Your task to perform on an android device: check out phone information Image 0: 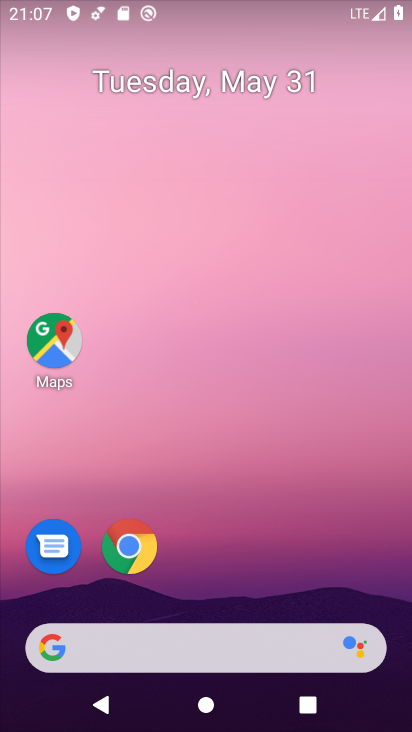
Step 0: drag from (403, 694) to (344, 110)
Your task to perform on an android device: check out phone information Image 1: 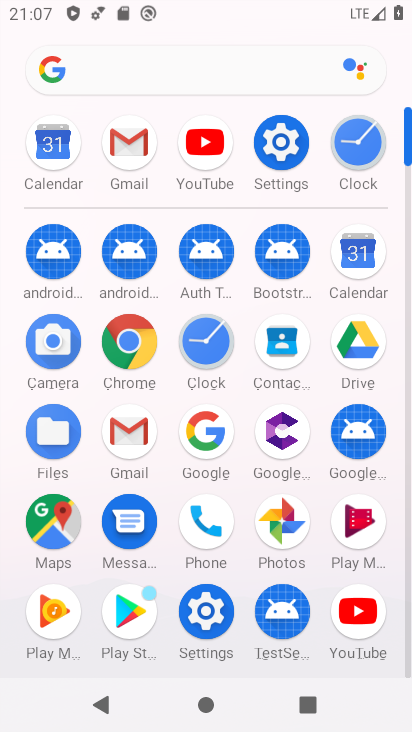
Step 1: click (208, 599)
Your task to perform on an android device: check out phone information Image 2: 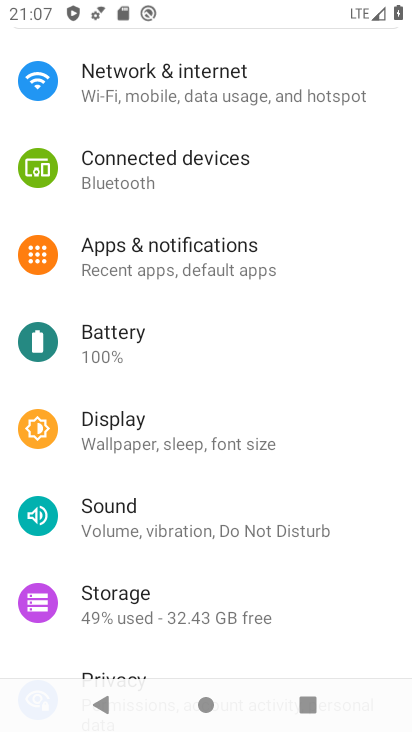
Step 2: drag from (322, 614) to (314, 226)
Your task to perform on an android device: check out phone information Image 3: 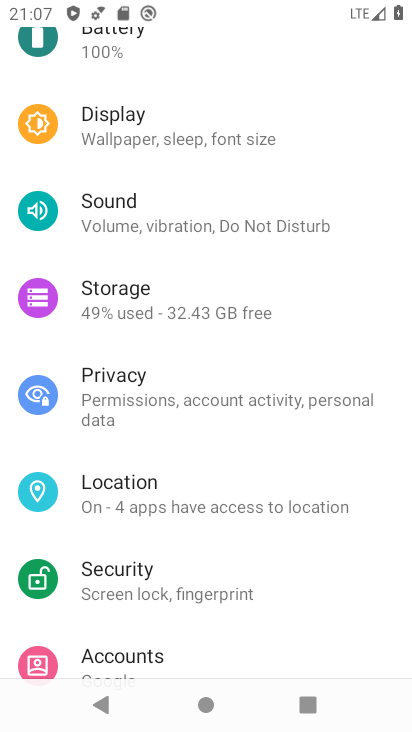
Step 3: drag from (280, 628) to (285, 240)
Your task to perform on an android device: check out phone information Image 4: 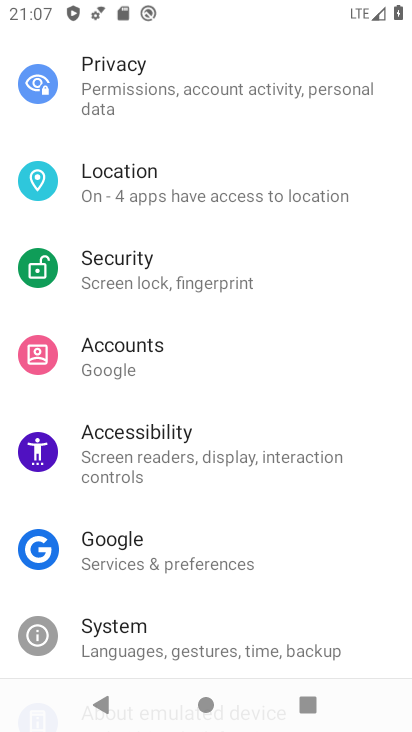
Step 4: drag from (224, 629) to (265, 184)
Your task to perform on an android device: check out phone information Image 5: 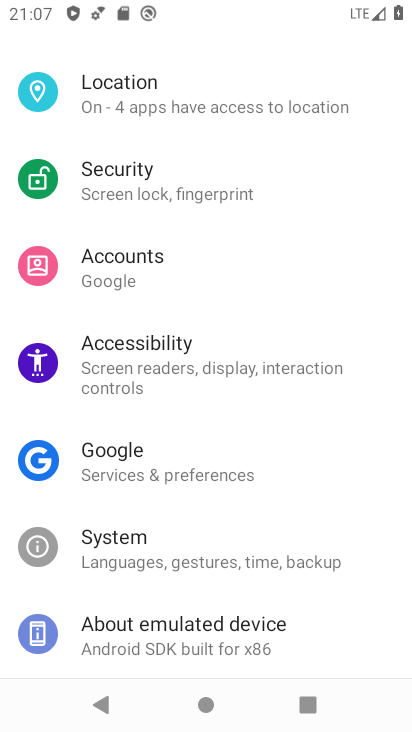
Step 5: click (105, 634)
Your task to perform on an android device: check out phone information Image 6: 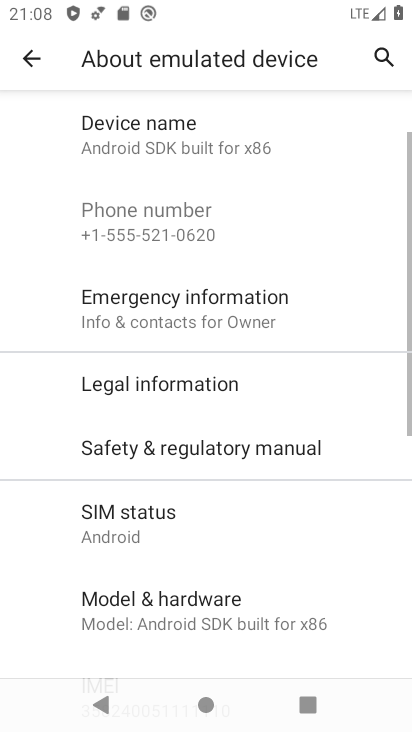
Step 6: task complete